Your task to perform on an android device: Show me popular games on the Play Store Image 0: 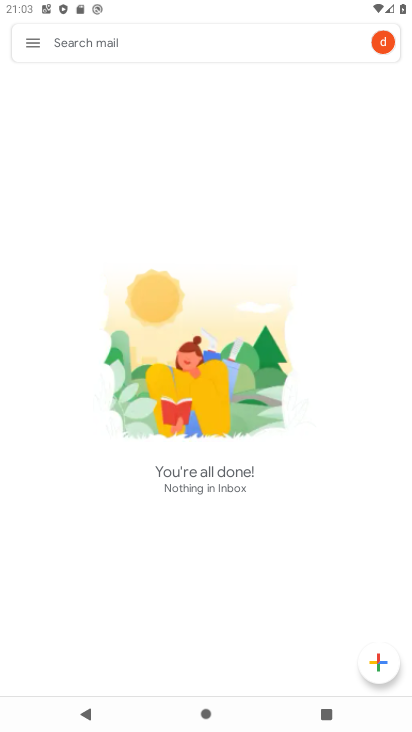
Step 0: press home button
Your task to perform on an android device: Show me popular games on the Play Store Image 1: 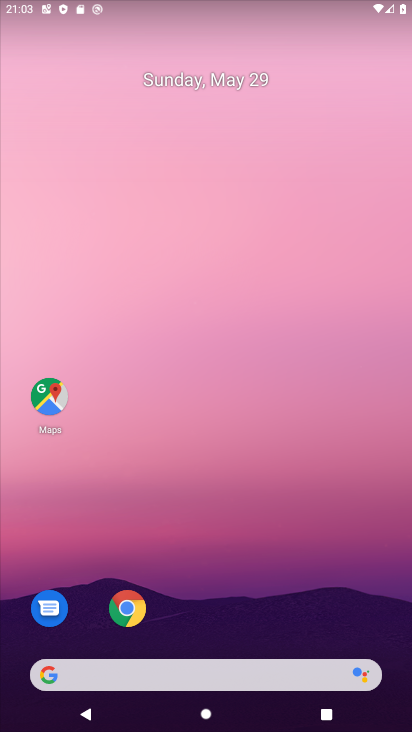
Step 1: drag from (371, 618) to (379, 195)
Your task to perform on an android device: Show me popular games on the Play Store Image 2: 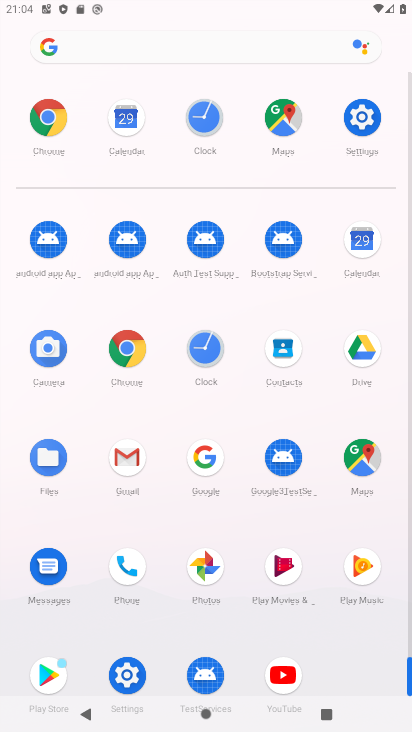
Step 2: click (48, 671)
Your task to perform on an android device: Show me popular games on the Play Store Image 3: 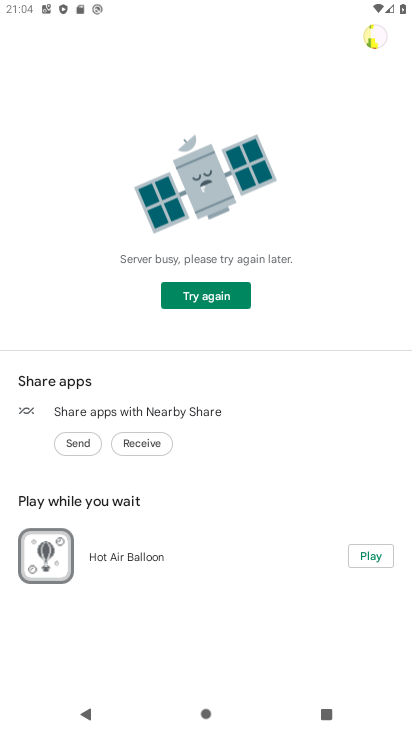
Step 3: click (208, 290)
Your task to perform on an android device: Show me popular games on the Play Store Image 4: 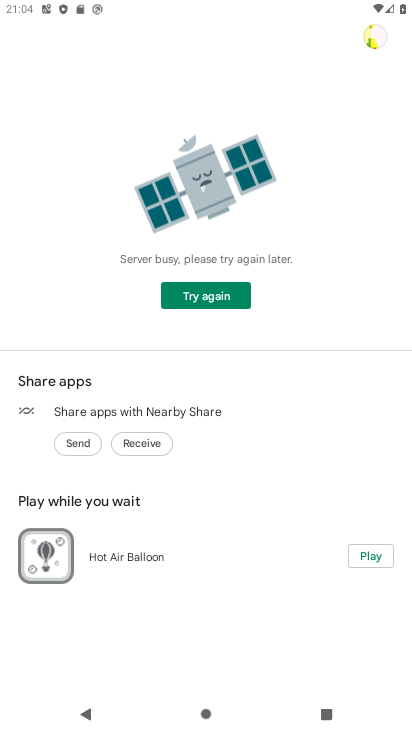
Step 4: task complete